Your task to perform on an android device: clear all cookies in the chrome app Image 0: 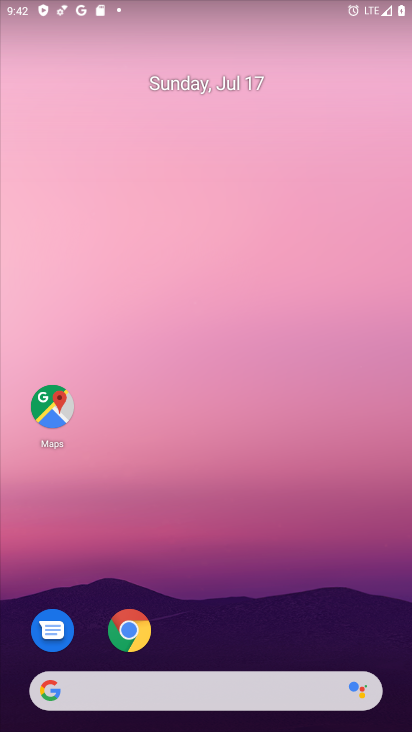
Step 0: press home button
Your task to perform on an android device: clear all cookies in the chrome app Image 1: 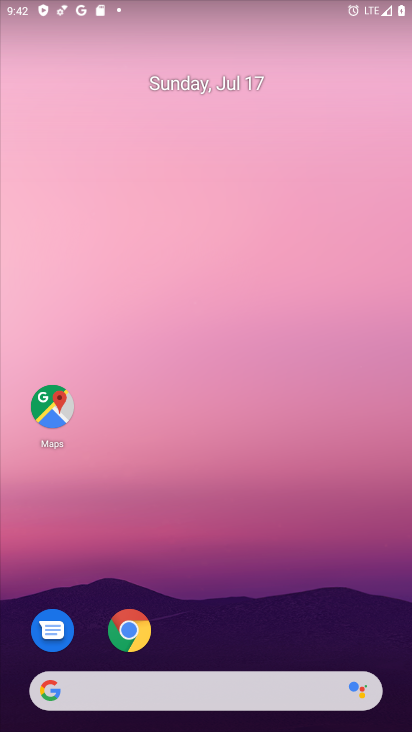
Step 1: click (130, 623)
Your task to perform on an android device: clear all cookies in the chrome app Image 2: 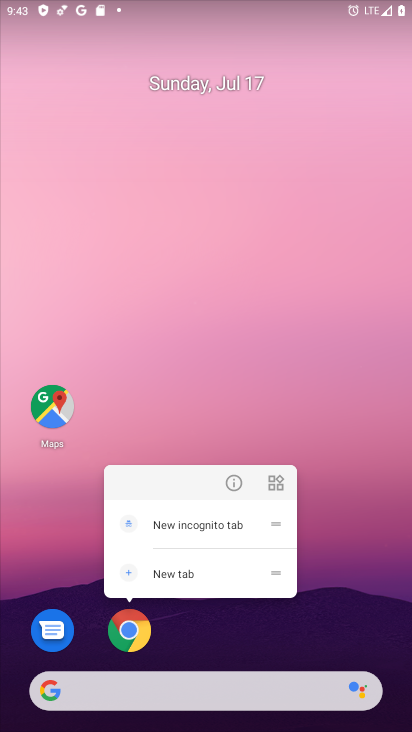
Step 2: click (131, 624)
Your task to perform on an android device: clear all cookies in the chrome app Image 3: 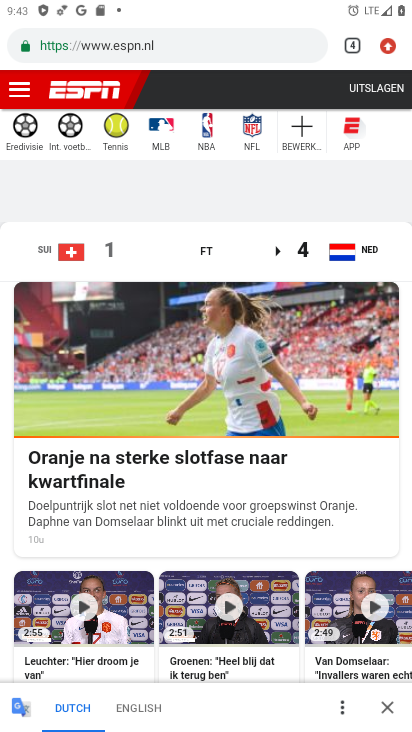
Step 3: click (382, 51)
Your task to perform on an android device: clear all cookies in the chrome app Image 4: 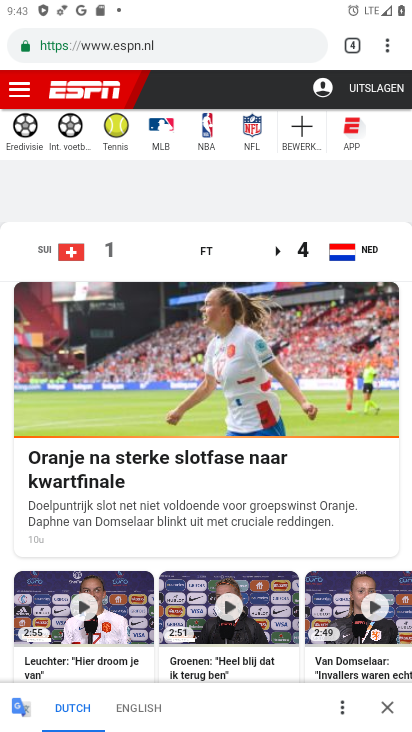
Step 4: click (384, 41)
Your task to perform on an android device: clear all cookies in the chrome app Image 5: 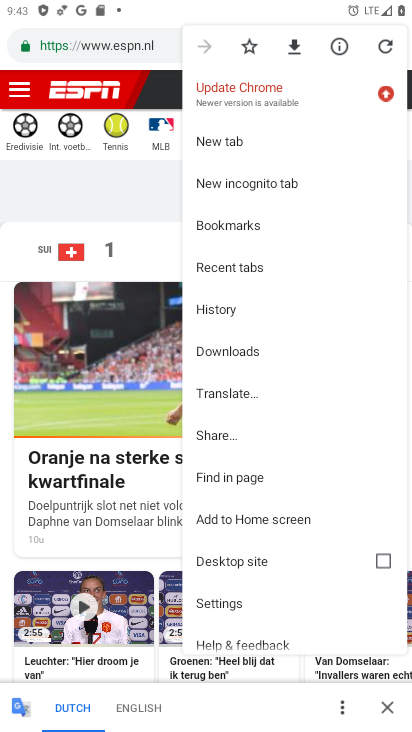
Step 5: click (245, 302)
Your task to perform on an android device: clear all cookies in the chrome app Image 6: 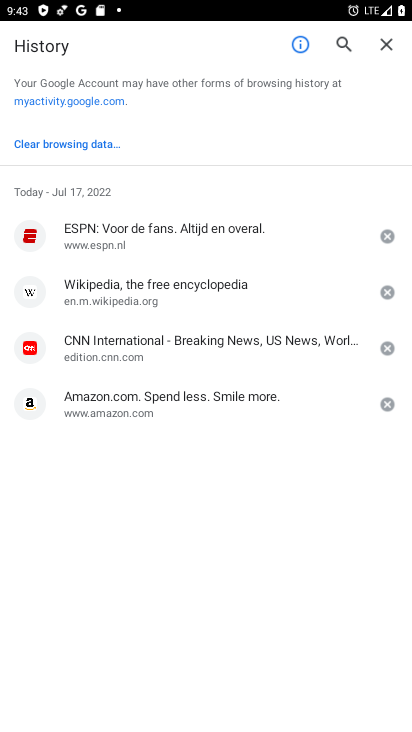
Step 6: click (68, 144)
Your task to perform on an android device: clear all cookies in the chrome app Image 7: 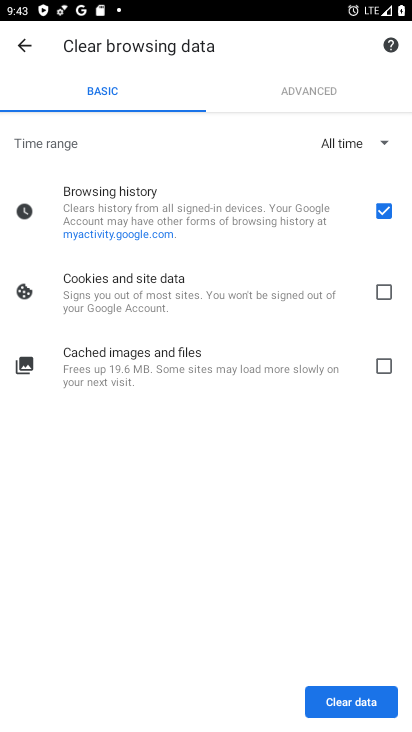
Step 7: click (388, 293)
Your task to perform on an android device: clear all cookies in the chrome app Image 8: 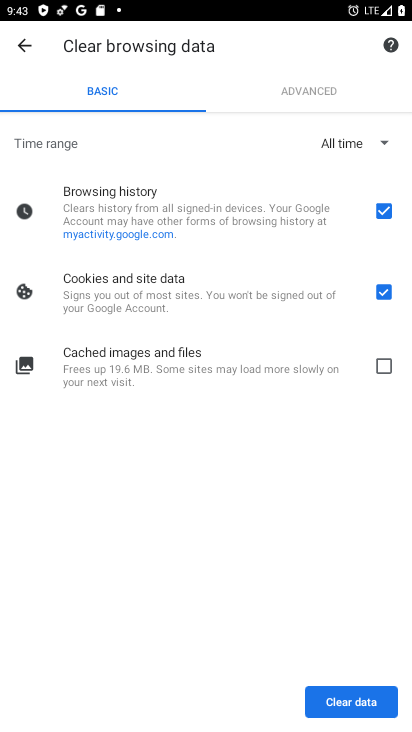
Step 8: click (392, 201)
Your task to perform on an android device: clear all cookies in the chrome app Image 9: 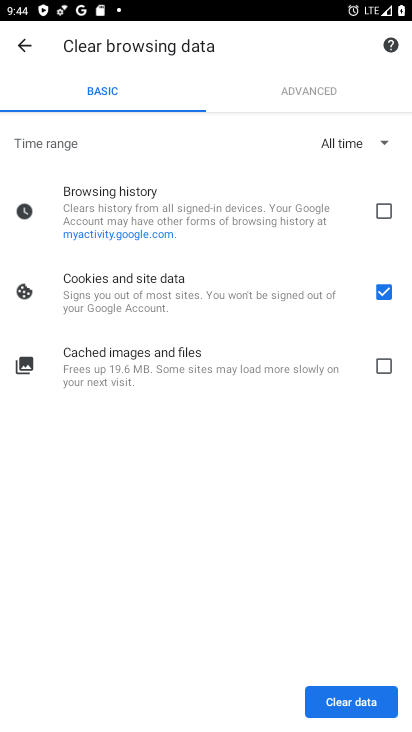
Step 9: click (356, 707)
Your task to perform on an android device: clear all cookies in the chrome app Image 10: 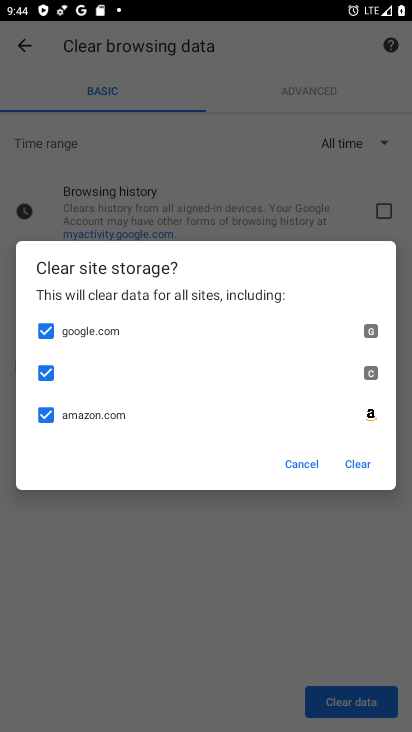
Step 10: click (363, 460)
Your task to perform on an android device: clear all cookies in the chrome app Image 11: 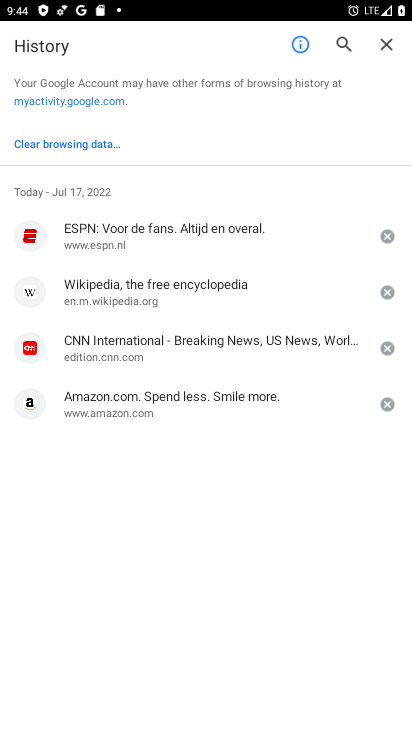
Step 11: task complete